Your task to perform on an android device: Open the phone app and click the voicemail tab. Image 0: 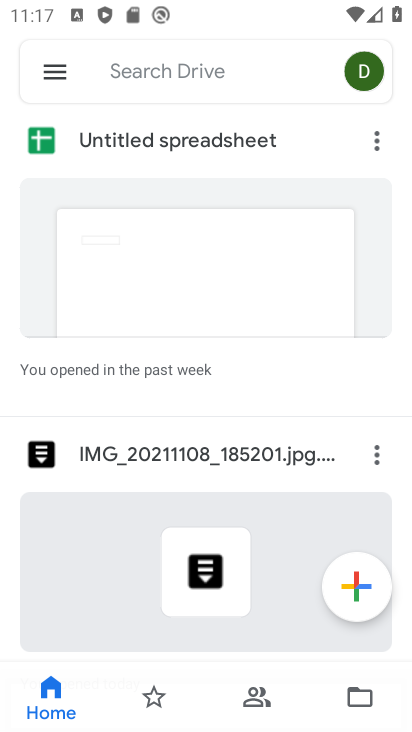
Step 0: press home button
Your task to perform on an android device: Open the phone app and click the voicemail tab. Image 1: 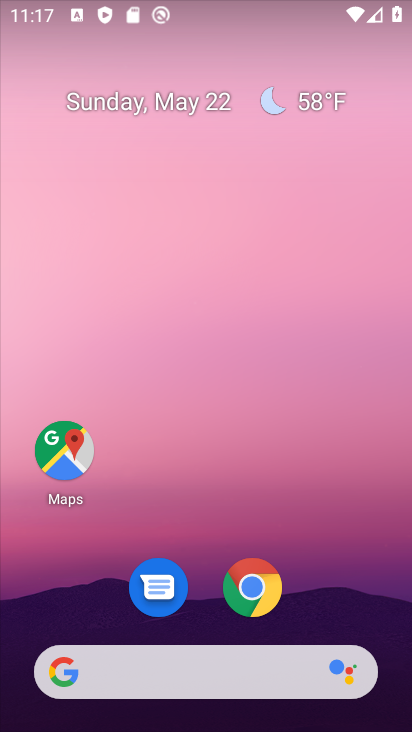
Step 1: drag from (224, 524) to (221, 141)
Your task to perform on an android device: Open the phone app and click the voicemail tab. Image 2: 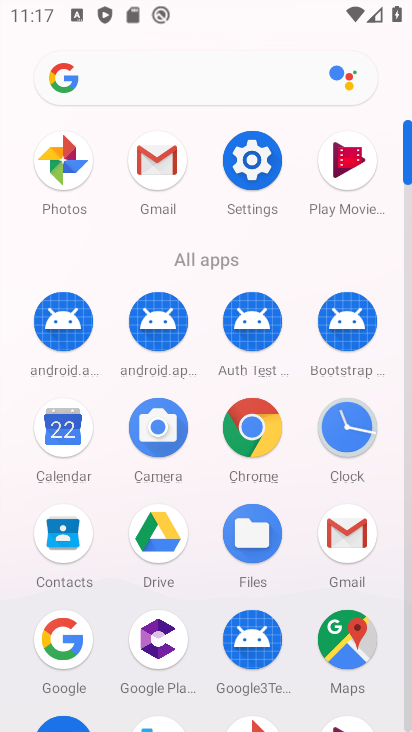
Step 2: drag from (209, 413) to (225, 132)
Your task to perform on an android device: Open the phone app and click the voicemail tab. Image 3: 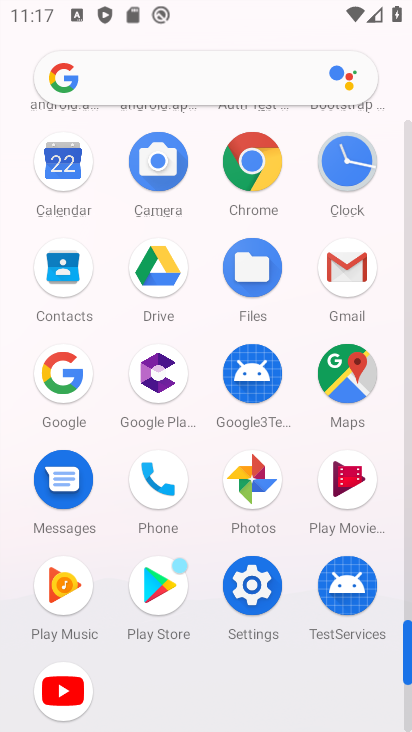
Step 3: click (166, 465)
Your task to perform on an android device: Open the phone app and click the voicemail tab. Image 4: 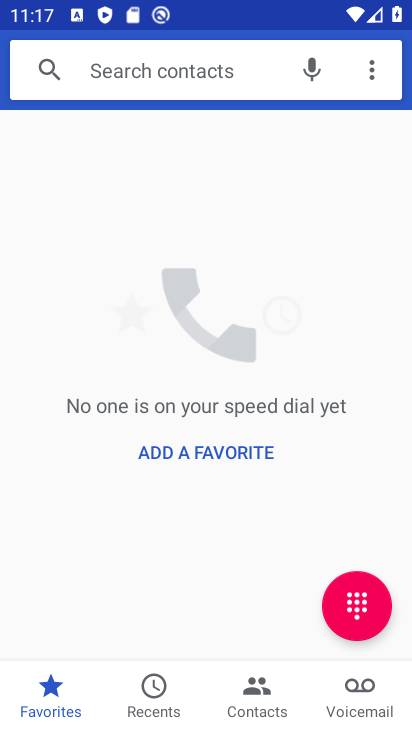
Step 4: click (361, 687)
Your task to perform on an android device: Open the phone app and click the voicemail tab. Image 5: 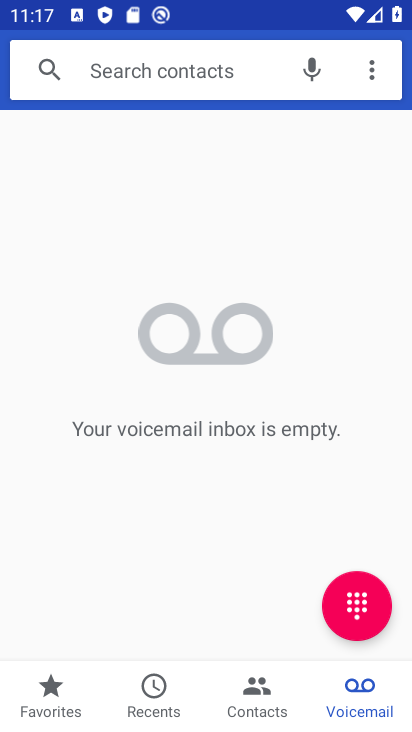
Step 5: task complete